Your task to perform on an android device: find snoozed emails in the gmail app Image 0: 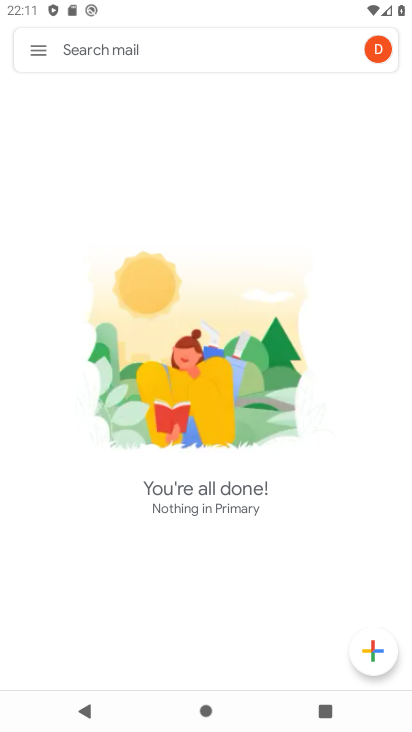
Step 0: click (38, 53)
Your task to perform on an android device: find snoozed emails in the gmail app Image 1: 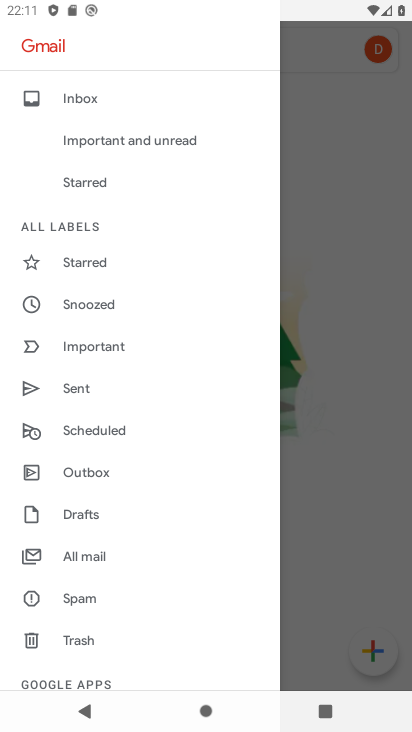
Step 1: click (136, 291)
Your task to perform on an android device: find snoozed emails in the gmail app Image 2: 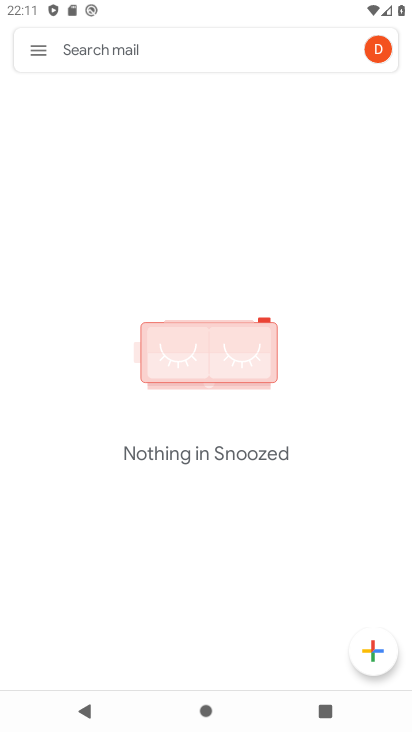
Step 2: task complete